Your task to perform on an android device: change text size in settings app Image 0: 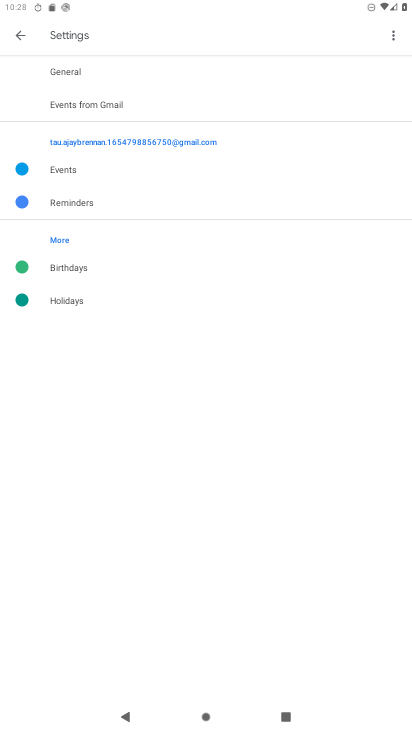
Step 0: press home button
Your task to perform on an android device: change text size in settings app Image 1: 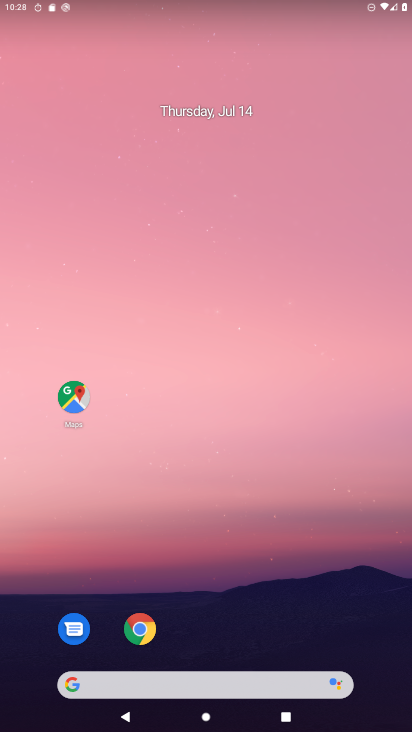
Step 1: drag from (243, 608) to (234, 55)
Your task to perform on an android device: change text size in settings app Image 2: 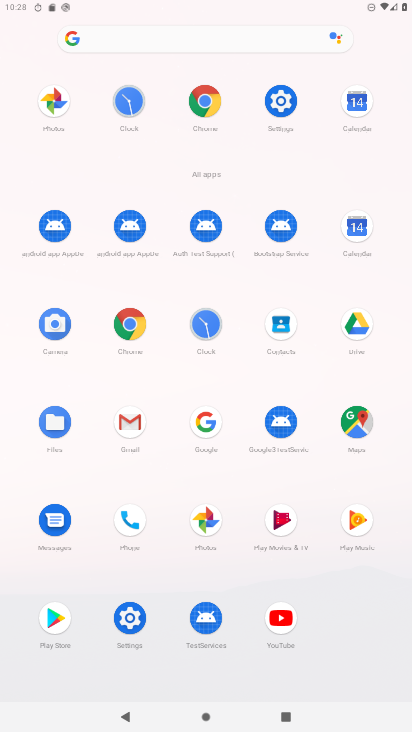
Step 2: click (271, 101)
Your task to perform on an android device: change text size in settings app Image 3: 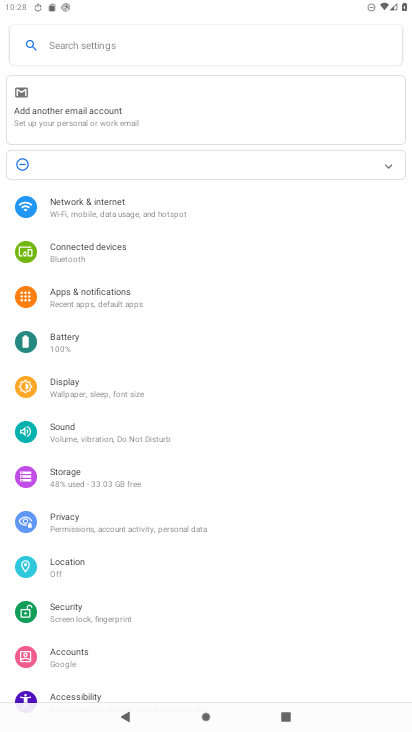
Step 3: click (126, 397)
Your task to perform on an android device: change text size in settings app Image 4: 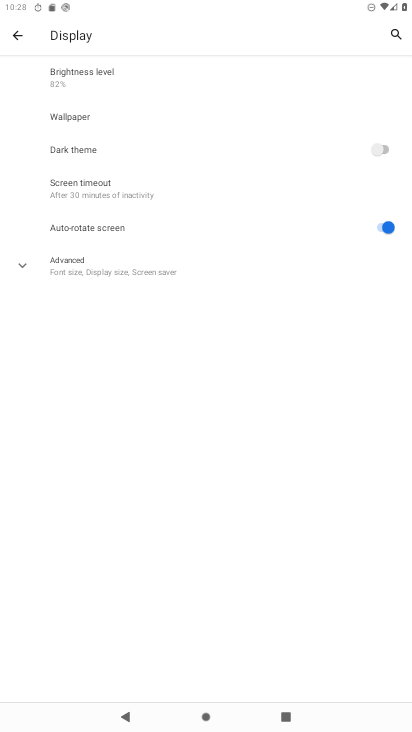
Step 4: click (126, 264)
Your task to perform on an android device: change text size in settings app Image 5: 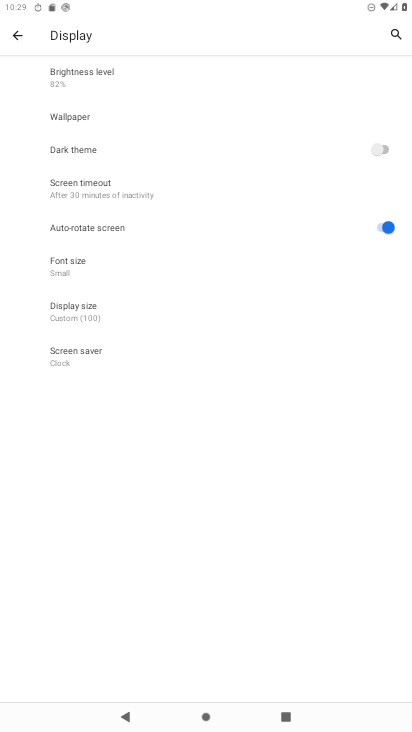
Step 5: click (95, 273)
Your task to perform on an android device: change text size in settings app Image 6: 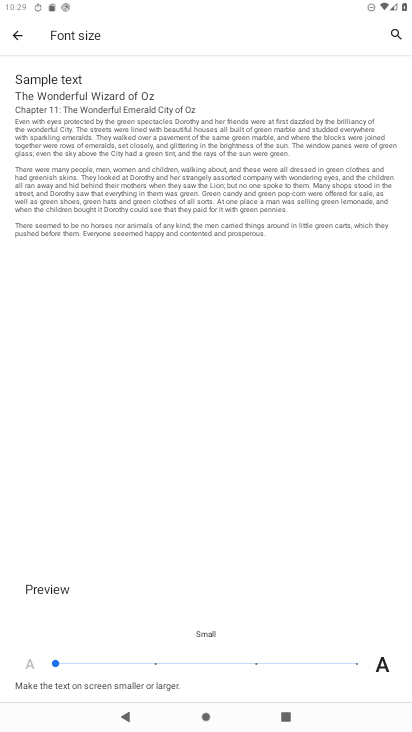
Step 6: click (154, 663)
Your task to perform on an android device: change text size in settings app Image 7: 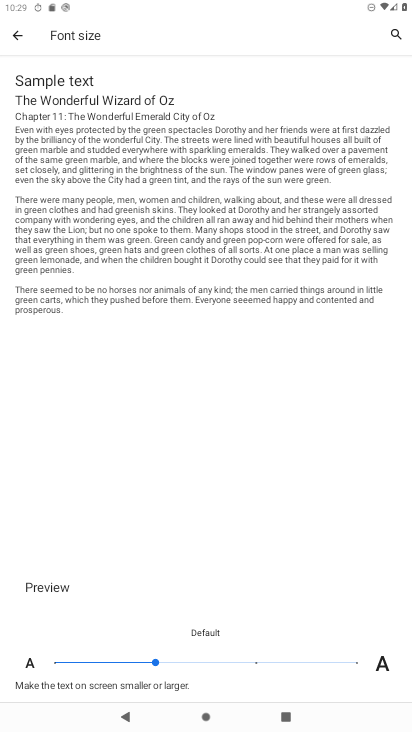
Step 7: task complete